Your task to perform on an android device: Check the weather Image 0: 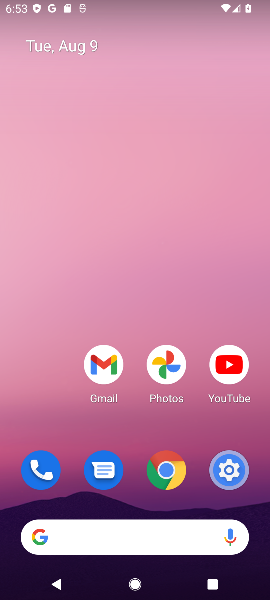
Step 0: drag from (78, 594) to (15, 565)
Your task to perform on an android device: Check the weather Image 1: 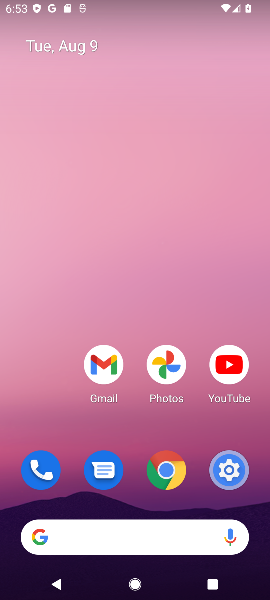
Step 1: click (137, 517)
Your task to perform on an android device: Check the weather Image 2: 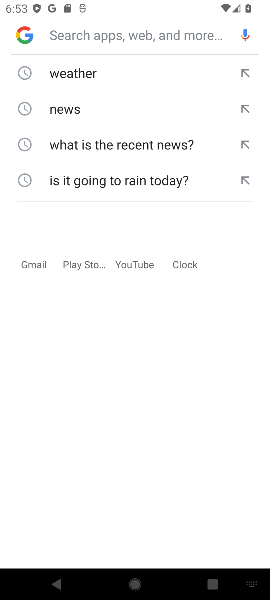
Step 2: type " Check the weather"
Your task to perform on an android device: Check the weather Image 3: 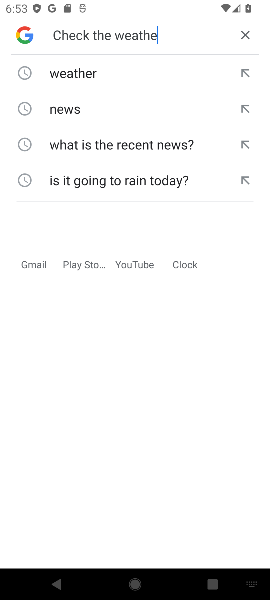
Step 3: type ""
Your task to perform on an android device: Check the weather Image 4: 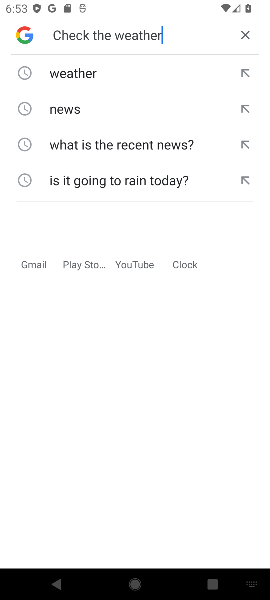
Step 4: press enter
Your task to perform on an android device: Check the weather Image 5: 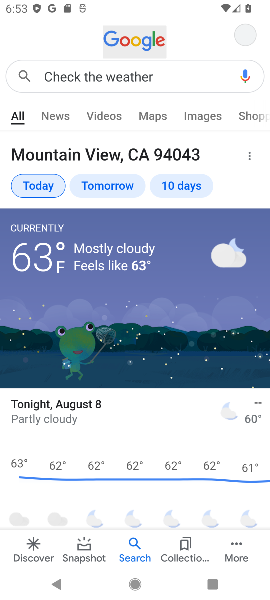
Step 5: task complete